Your task to perform on an android device: Open settings on Google Maps Image 0: 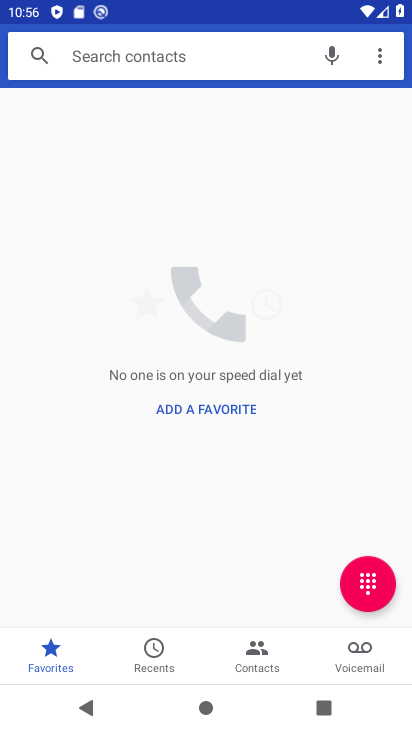
Step 0: press home button
Your task to perform on an android device: Open settings on Google Maps Image 1: 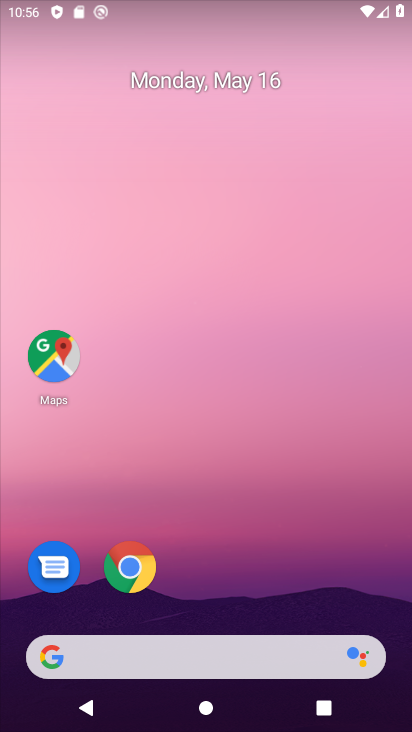
Step 1: drag from (195, 642) to (323, 4)
Your task to perform on an android device: Open settings on Google Maps Image 2: 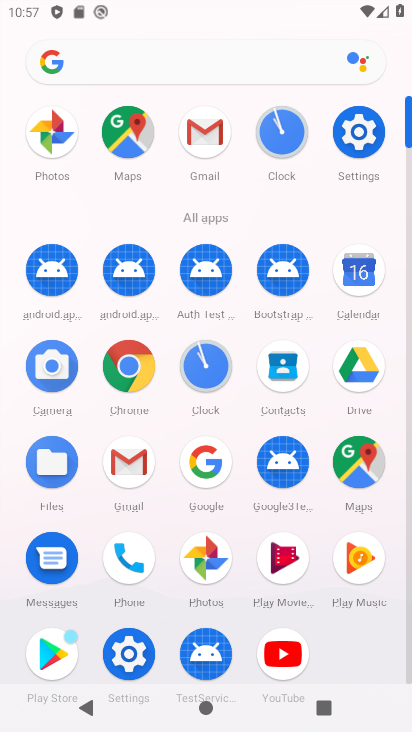
Step 2: click (354, 463)
Your task to perform on an android device: Open settings on Google Maps Image 3: 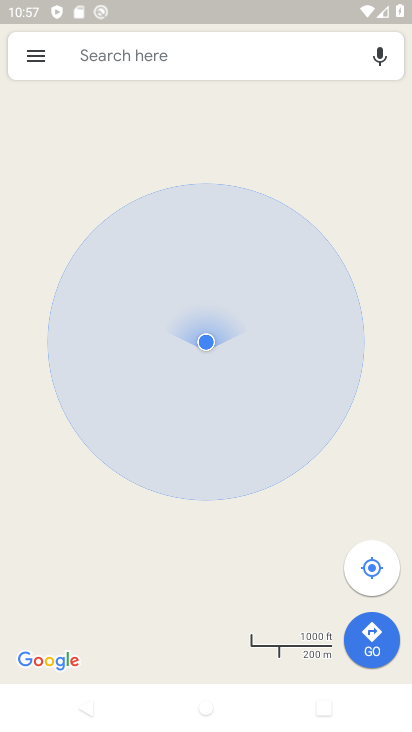
Step 3: click (40, 69)
Your task to perform on an android device: Open settings on Google Maps Image 4: 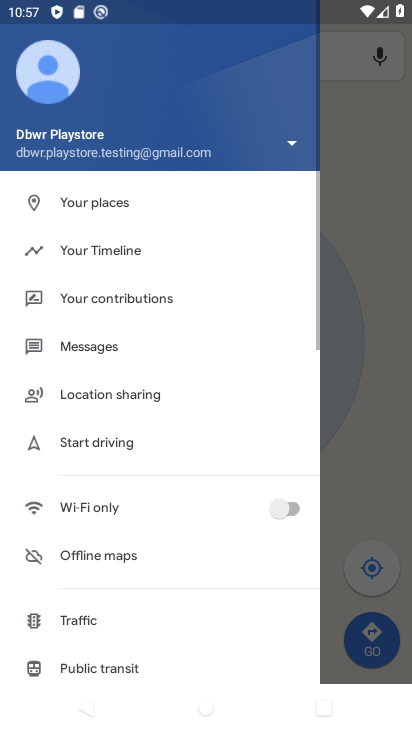
Step 4: drag from (150, 605) to (316, 217)
Your task to perform on an android device: Open settings on Google Maps Image 5: 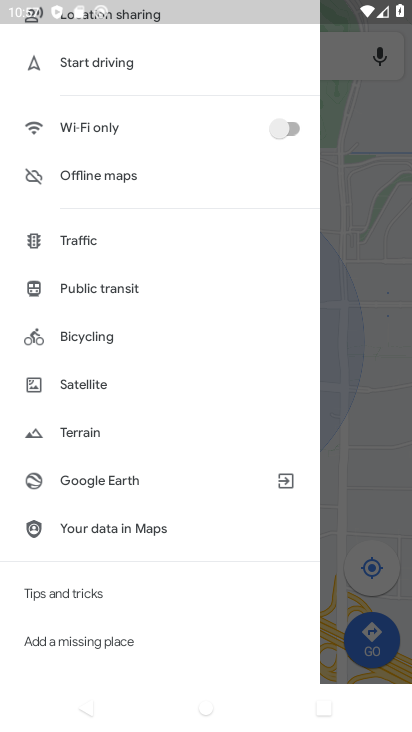
Step 5: drag from (124, 612) to (197, 276)
Your task to perform on an android device: Open settings on Google Maps Image 6: 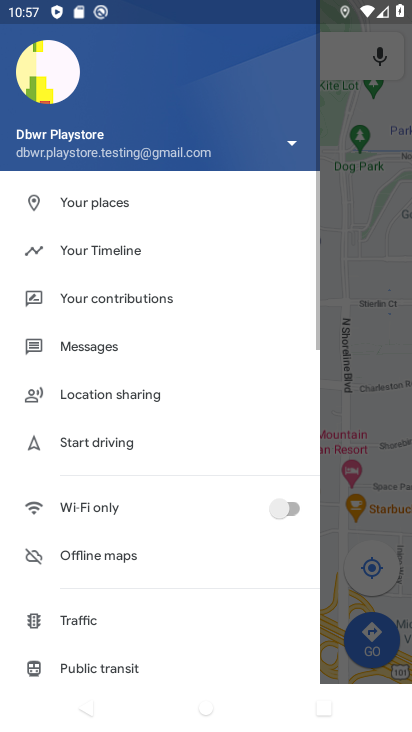
Step 6: drag from (65, 633) to (208, 154)
Your task to perform on an android device: Open settings on Google Maps Image 7: 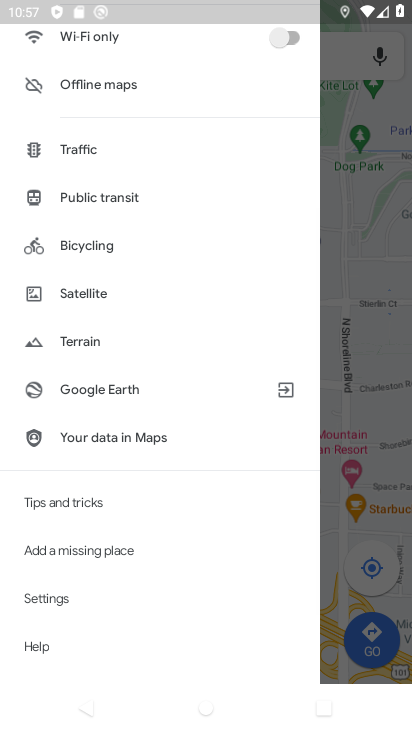
Step 7: drag from (109, 598) to (233, 216)
Your task to perform on an android device: Open settings on Google Maps Image 8: 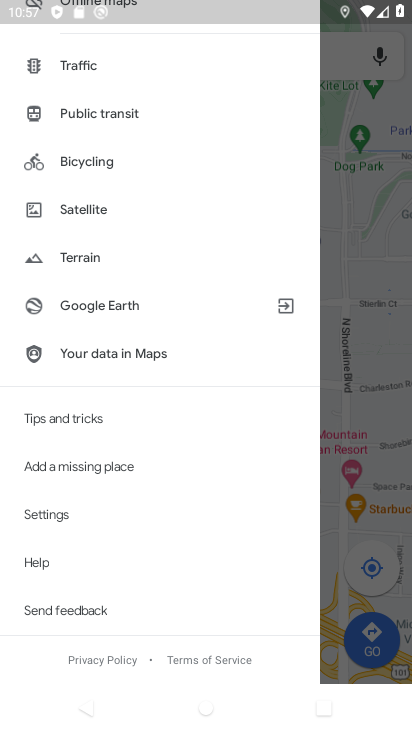
Step 8: click (112, 517)
Your task to perform on an android device: Open settings on Google Maps Image 9: 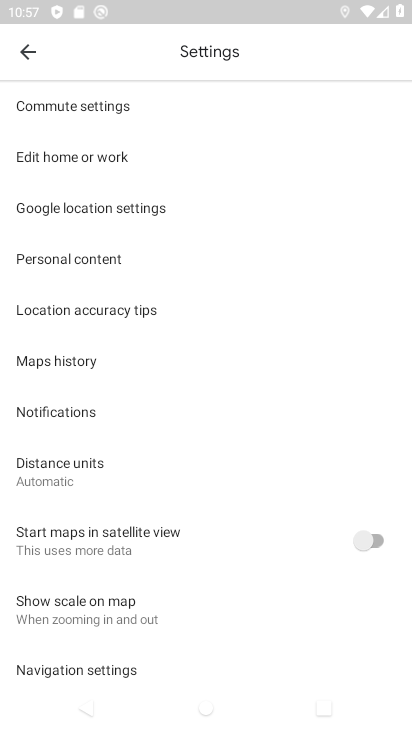
Step 9: task complete